Your task to perform on an android device: Open Chrome and go to the settings page Image 0: 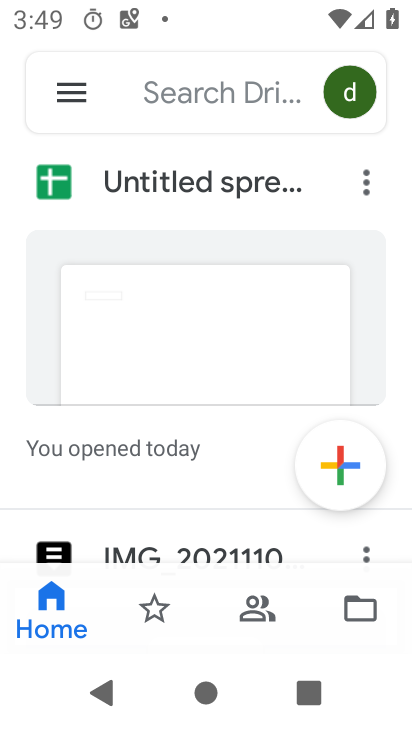
Step 0: press home button
Your task to perform on an android device: Open Chrome and go to the settings page Image 1: 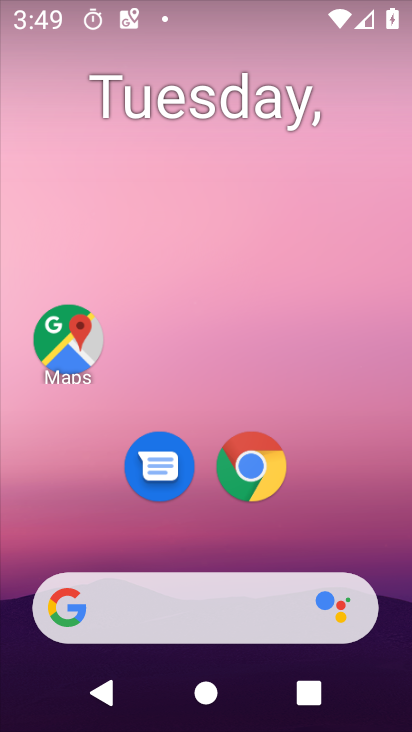
Step 1: drag from (368, 520) to (382, 187)
Your task to perform on an android device: Open Chrome and go to the settings page Image 2: 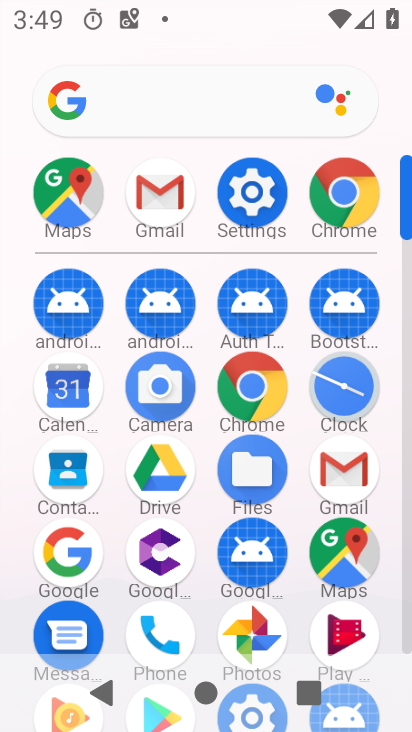
Step 2: click (270, 387)
Your task to perform on an android device: Open Chrome and go to the settings page Image 3: 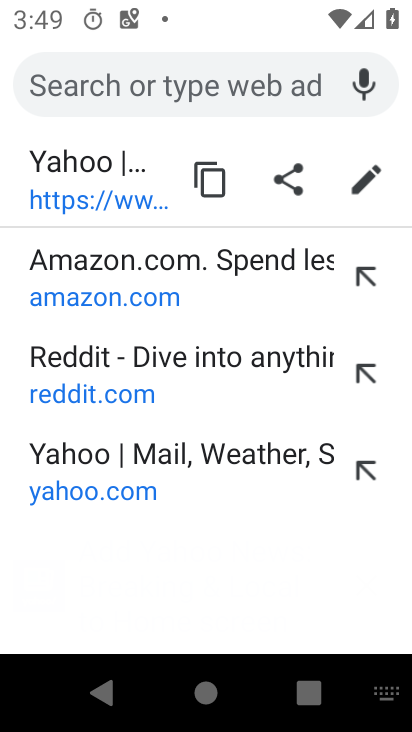
Step 3: press back button
Your task to perform on an android device: Open Chrome and go to the settings page Image 4: 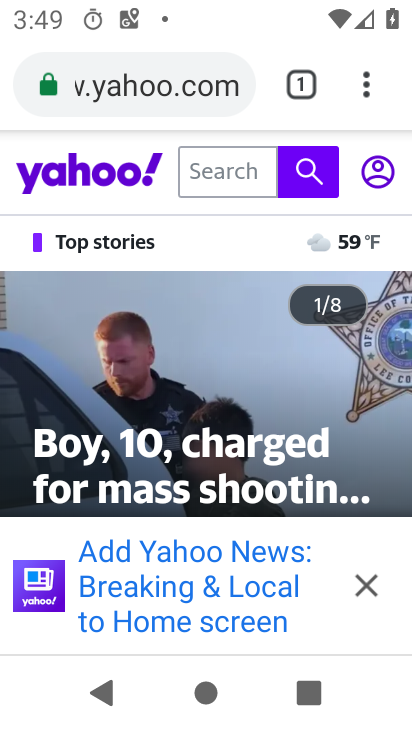
Step 4: click (365, 97)
Your task to perform on an android device: Open Chrome and go to the settings page Image 5: 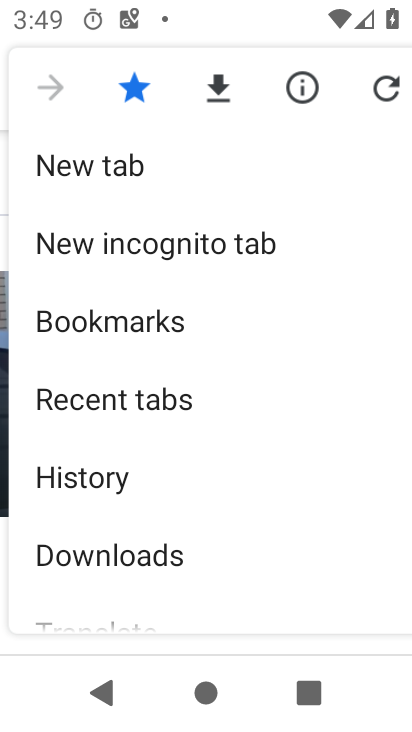
Step 5: drag from (335, 447) to (339, 299)
Your task to perform on an android device: Open Chrome and go to the settings page Image 6: 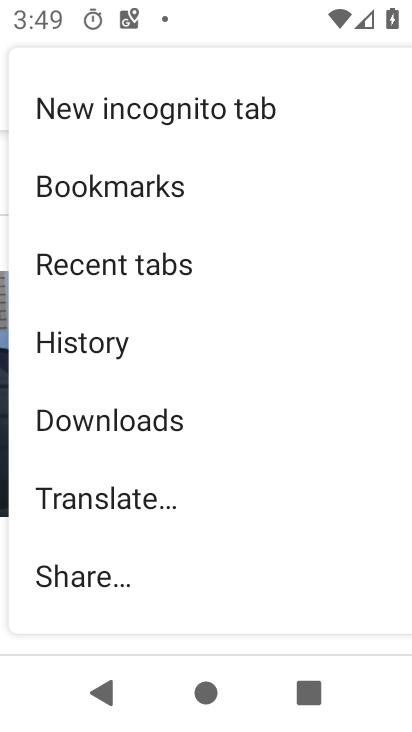
Step 6: drag from (330, 454) to (329, 343)
Your task to perform on an android device: Open Chrome and go to the settings page Image 7: 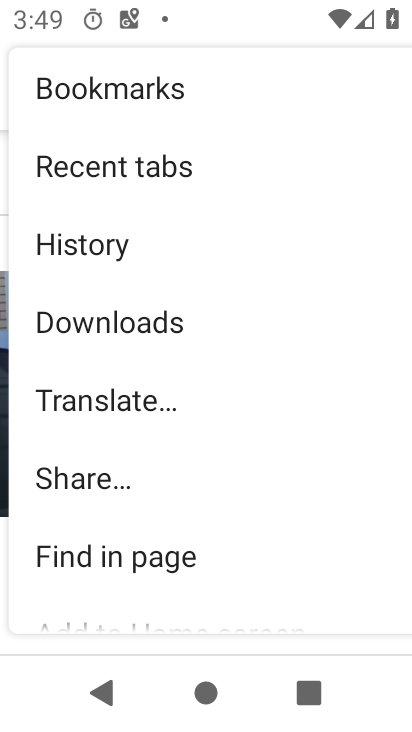
Step 7: drag from (336, 492) to (338, 342)
Your task to perform on an android device: Open Chrome and go to the settings page Image 8: 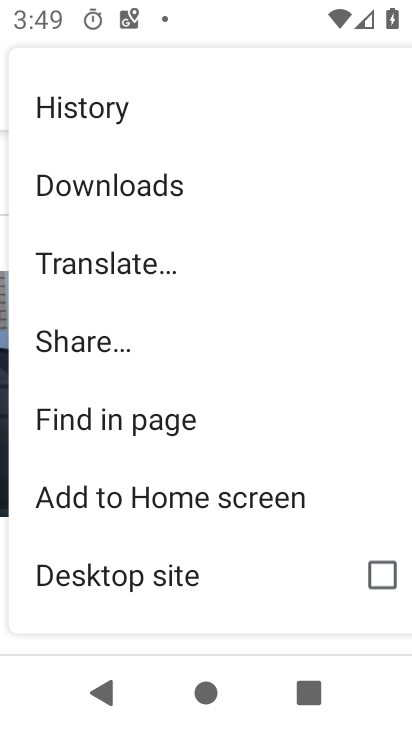
Step 8: drag from (341, 473) to (337, 317)
Your task to perform on an android device: Open Chrome and go to the settings page Image 9: 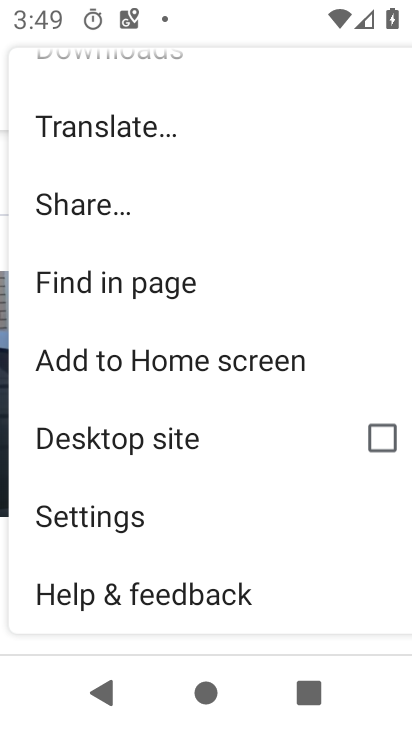
Step 9: drag from (329, 504) to (331, 331)
Your task to perform on an android device: Open Chrome and go to the settings page Image 10: 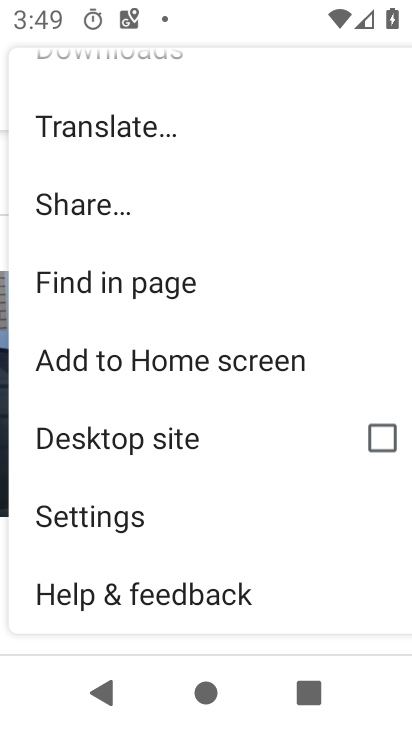
Step 10: click (136, 510)
Your task to perform on an android device: Open Chrome and go to the settings page Image 11: 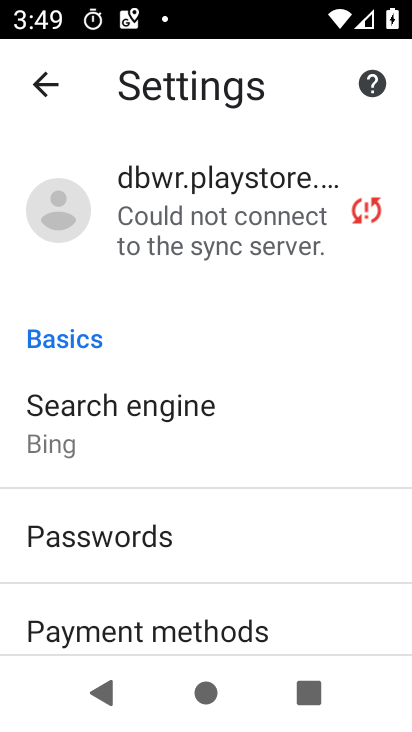
Step 11: task complete